Your task to perform on an android device: Open settings Image 0: 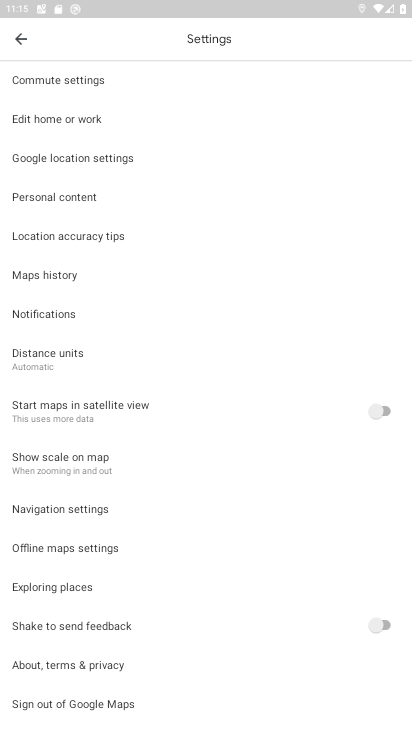
Step 0: press home button
Your task to perform on an android device: Open settings Image 1: 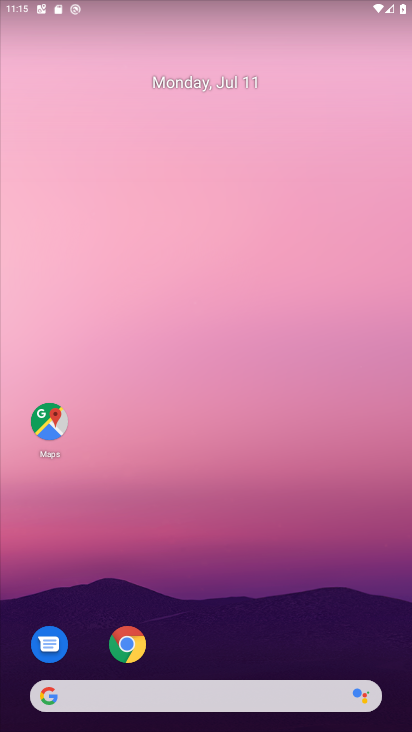
Step 1: drag from (206, 596) to (407, 137)
Your task to perform on an android device: Open settings Image 2: 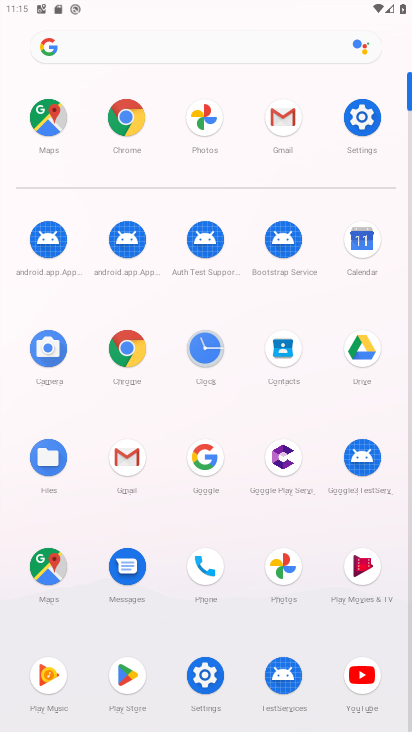
Step 2: click (367, 116)
Your task to perform on an android device: Open settings Image 3: 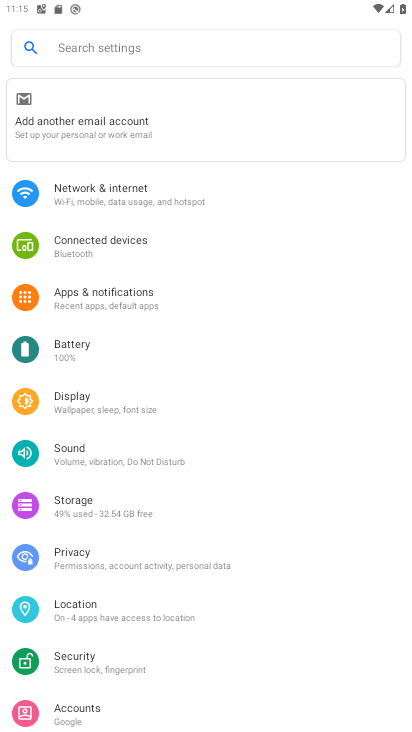
Step 3: task complete